Your task to perform on an android device: see creations saved in the google photos Image 0: 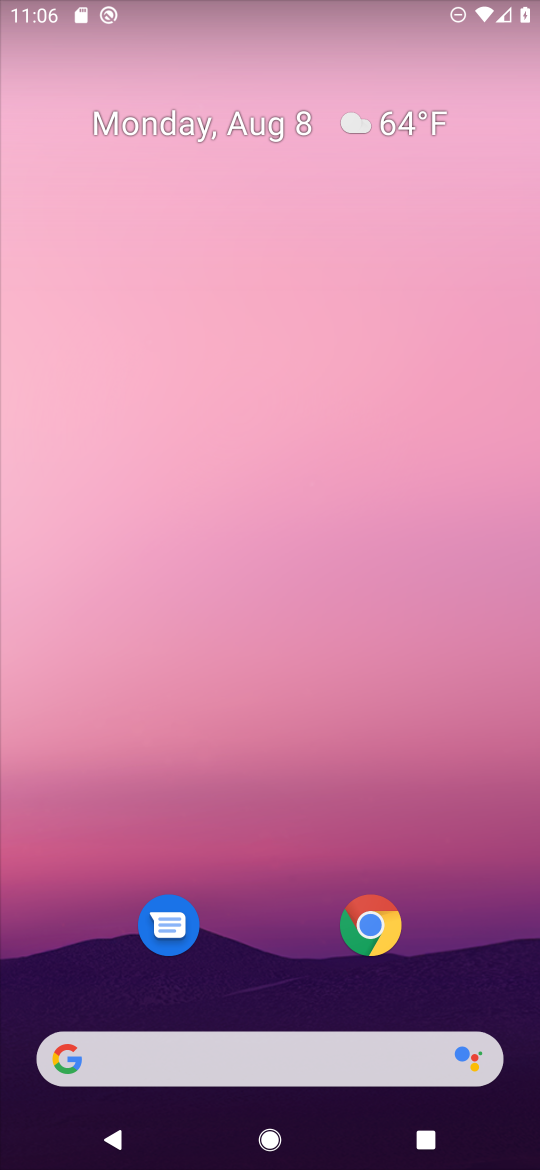
Step 0: drag from (271, 925) to (464, 109)
Your task to perform on an android device: see creations saved in the google photos Image 1: 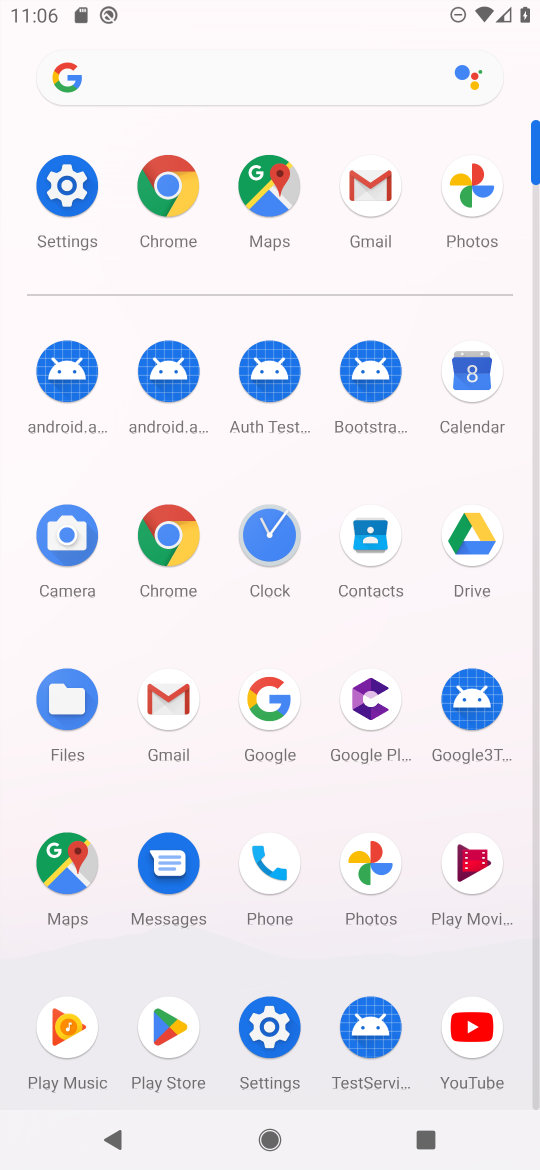
Step 1: click (363, 872)
Your task to perform on an android device: see creations saved in the google photos Image 2: 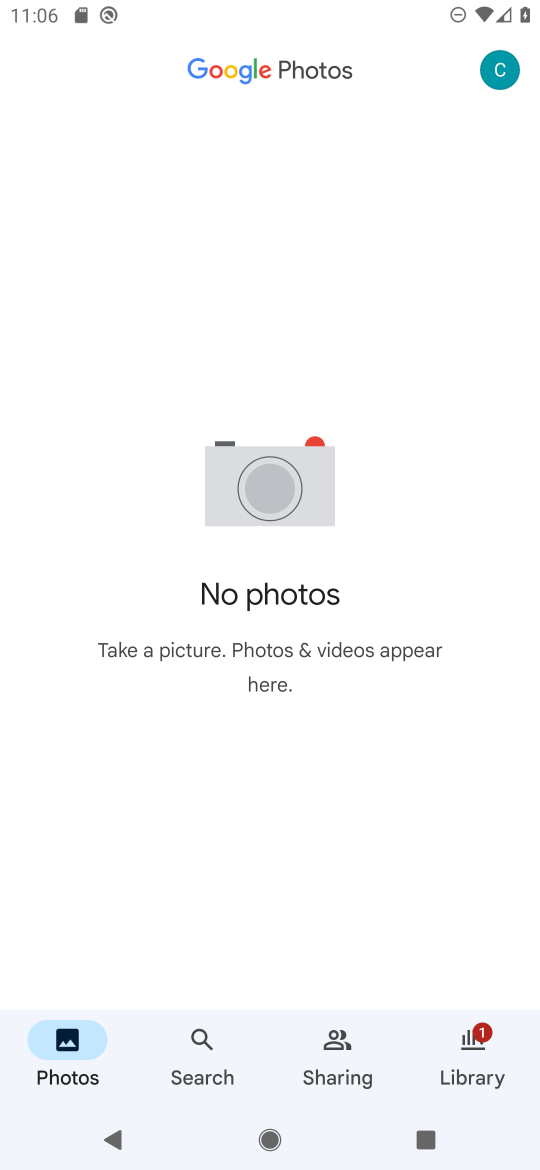
Step 2: click (319, 1030)
Your task to perform on an android device: see creations saved in the google photos Image 3: 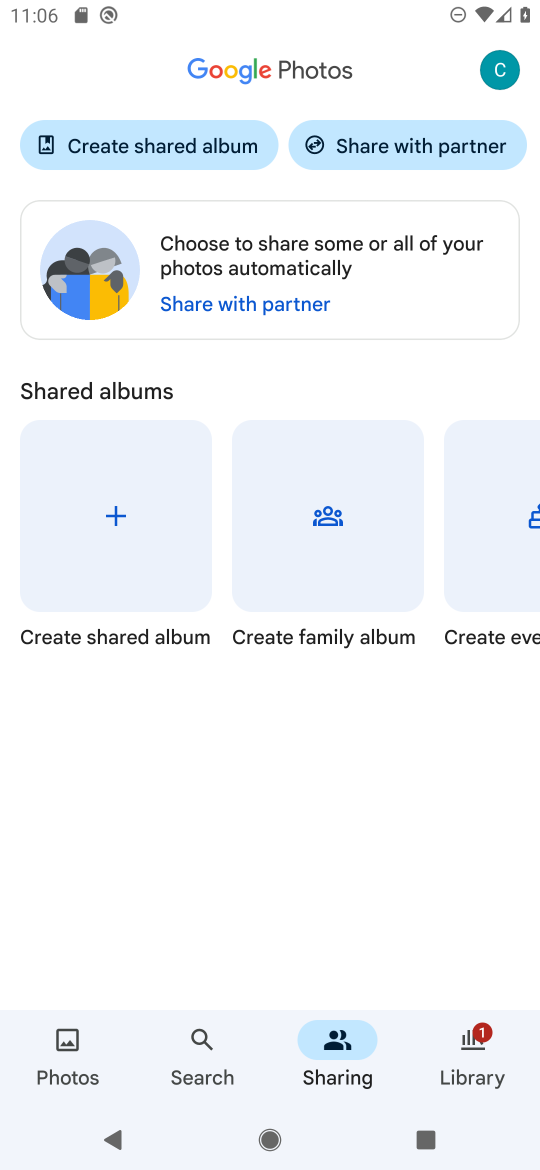
Step 3: click (506, 1028)
Your task to perform on an android device: see creations saved in the google photos Image 4: 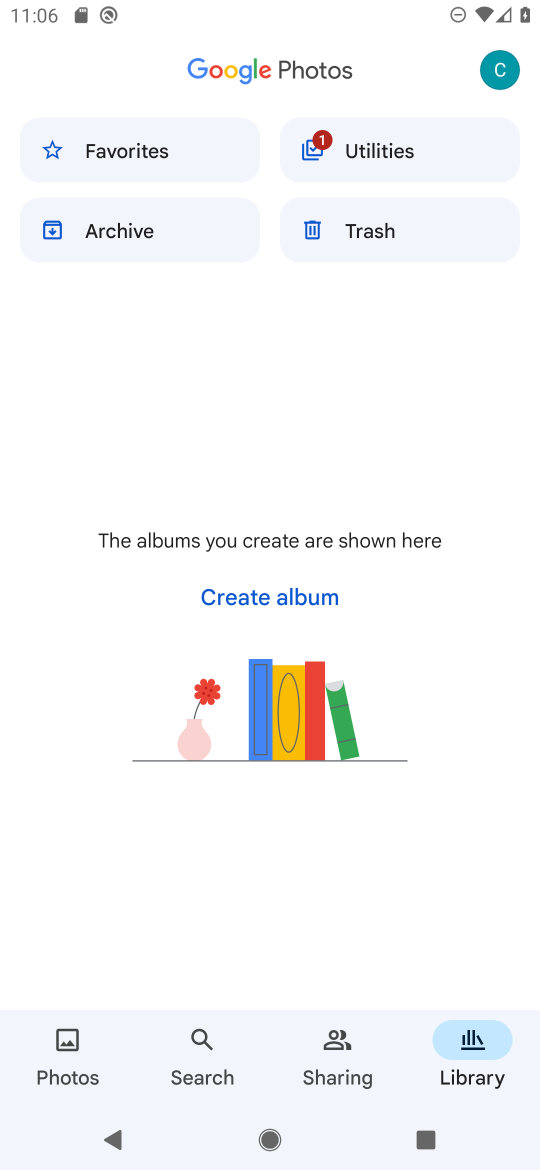
Step 4: click (390, 154)
Your task to perform on an android device: see creations saved in the google photos Image 5: 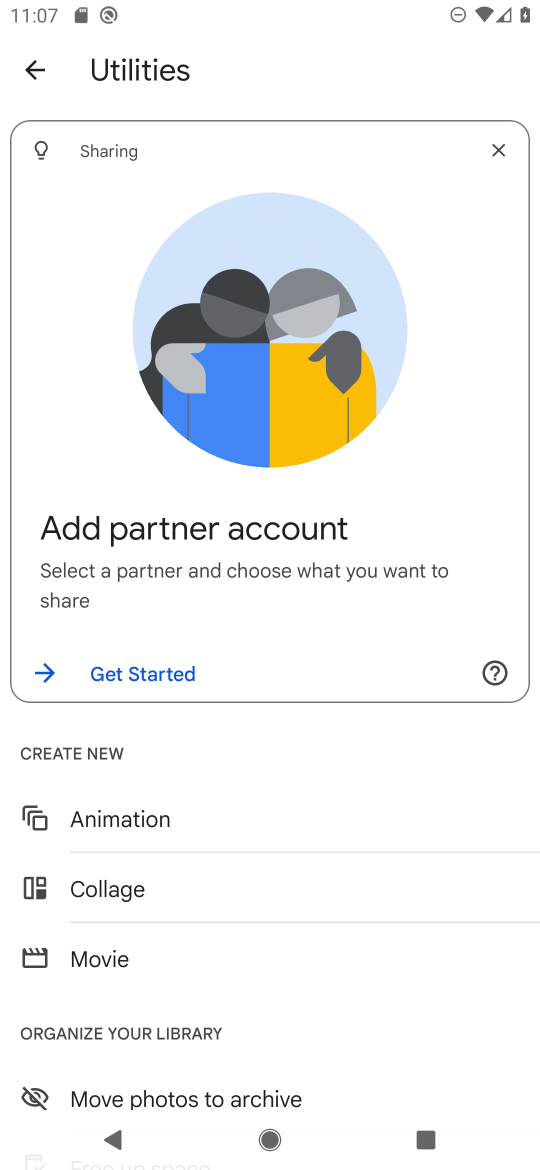
Step 5: task complete